Your task to perform on an android device: open app "Venmo" (install if not already installed), go to login, and select forgot password Image 0: 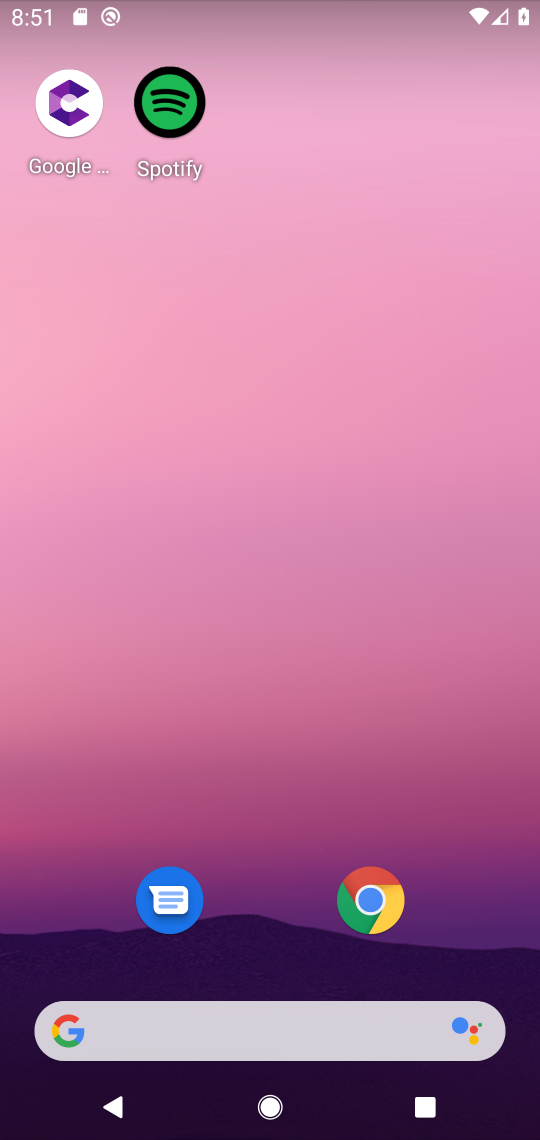
Step 0: drag from (278, 813) to (274, 539)
Your task to perform on an android device: open app "Venmo" (install if not already installed), go to login, and select forgot password Image 1: 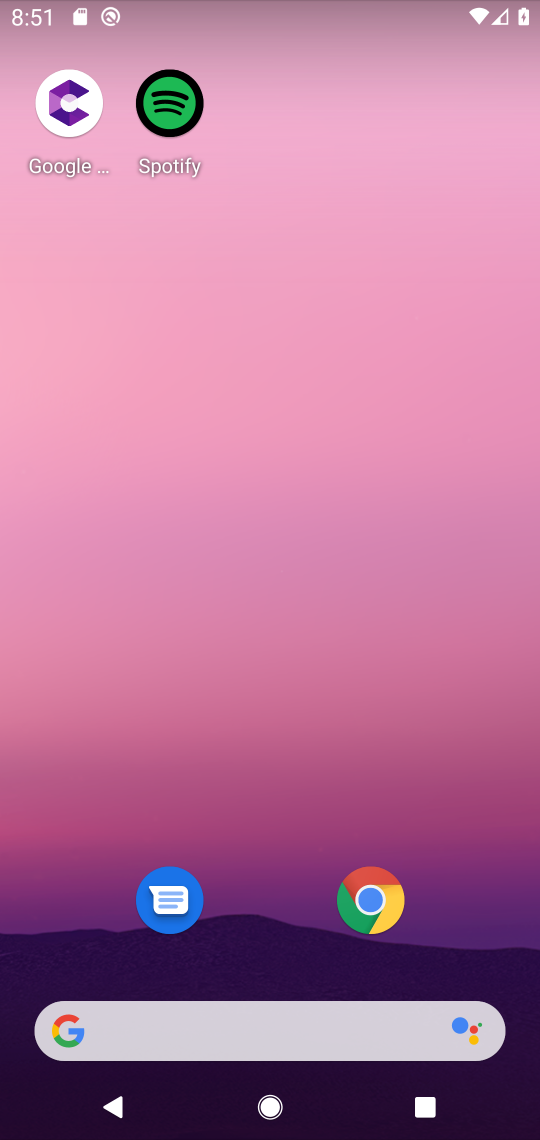
Step 1: drag from (221, 915) to (249, 530)
Your task to perform on an android device: open app "Venmo" (install if not already installed), go to login, and select forgot password Image 2: 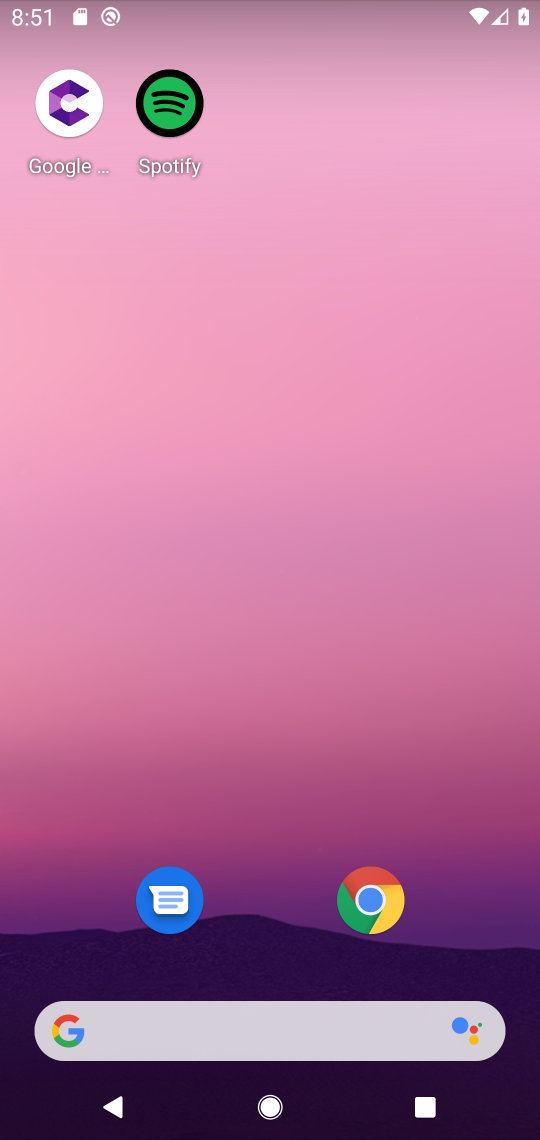
Step 2: drag from (280, 1002) to (445, 134)
Your task to perform on an android device: open app "Venmo" (install if not already installed), go to login, and select forgot password Image 3: 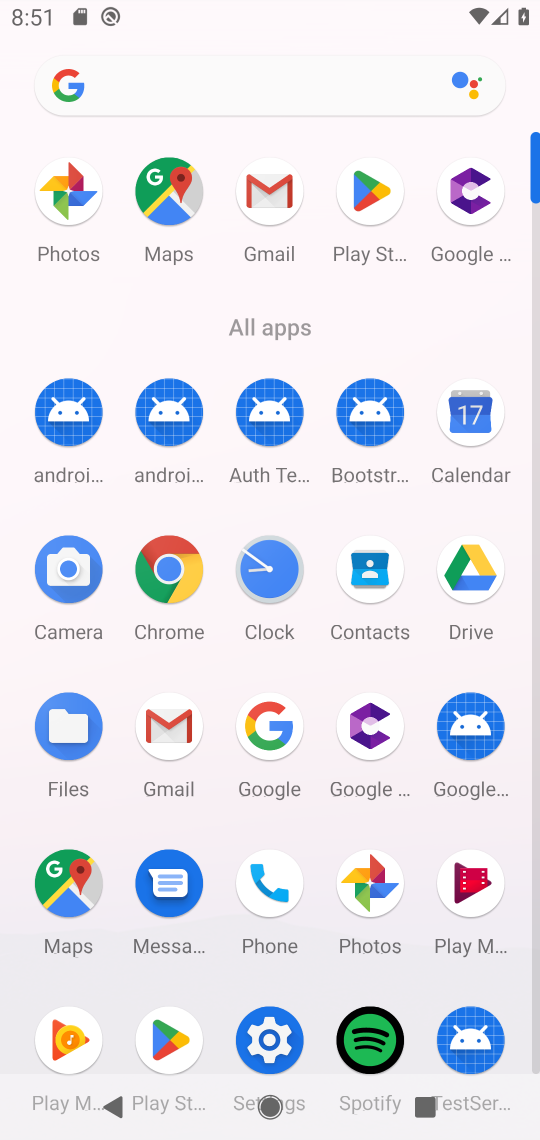
Step 3: click (372, 192)
Your task to perform on an android device: open app "Venmo" (install if not already installed), go to login, and select forgot password Image 4: 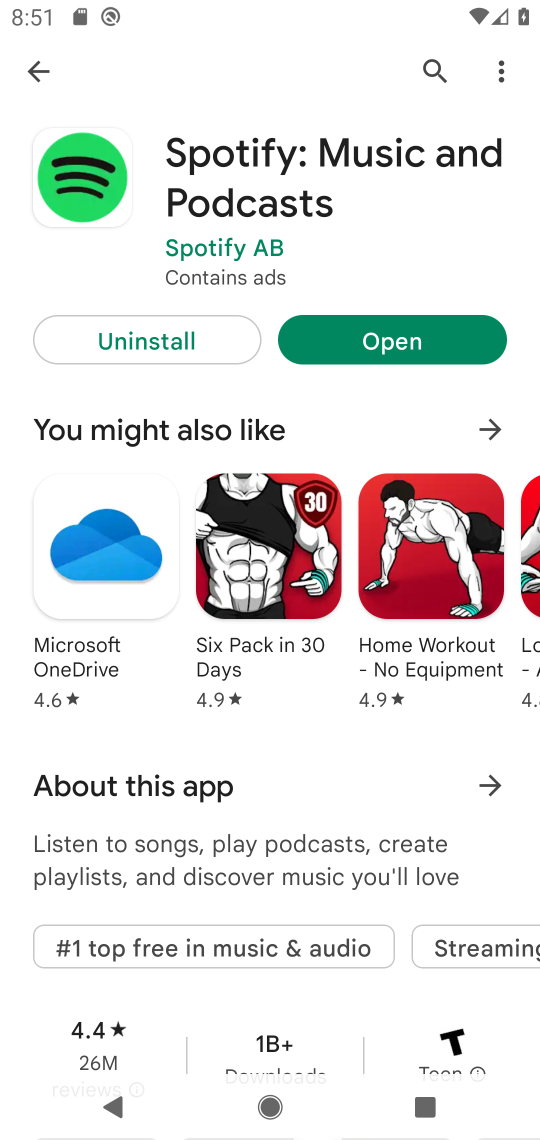
Step 4: click (34, 71)
Your task to perform on an android device: open app "Venmo" (install if not already installed), go to login, and select forgot password Image 5: 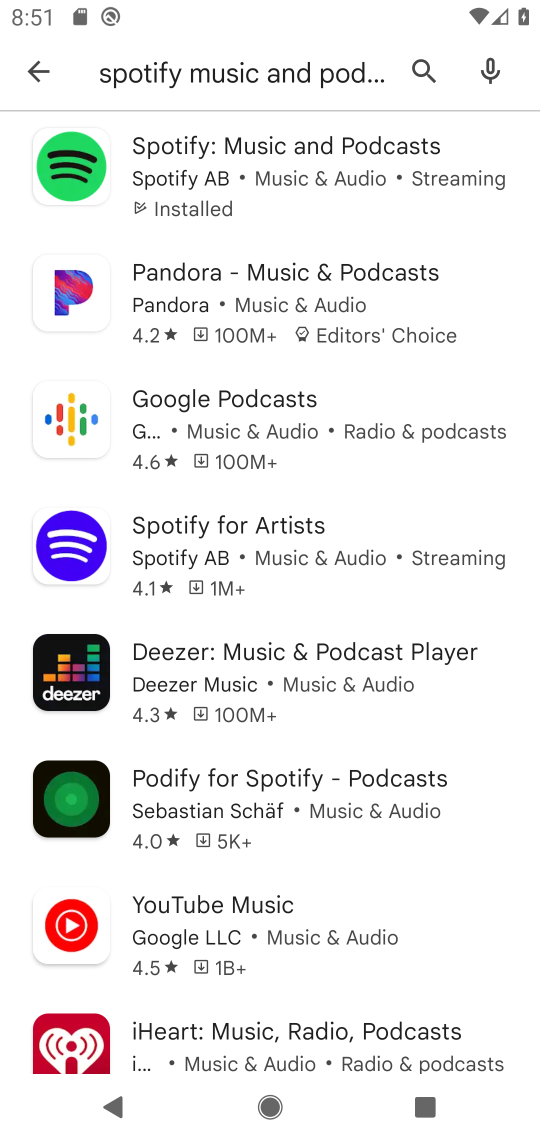
Step 5: click (44, 86)
Your task to perform on an android device: open app "Venmo" (install if not already installed), go to login, and select forgot password Image 6: 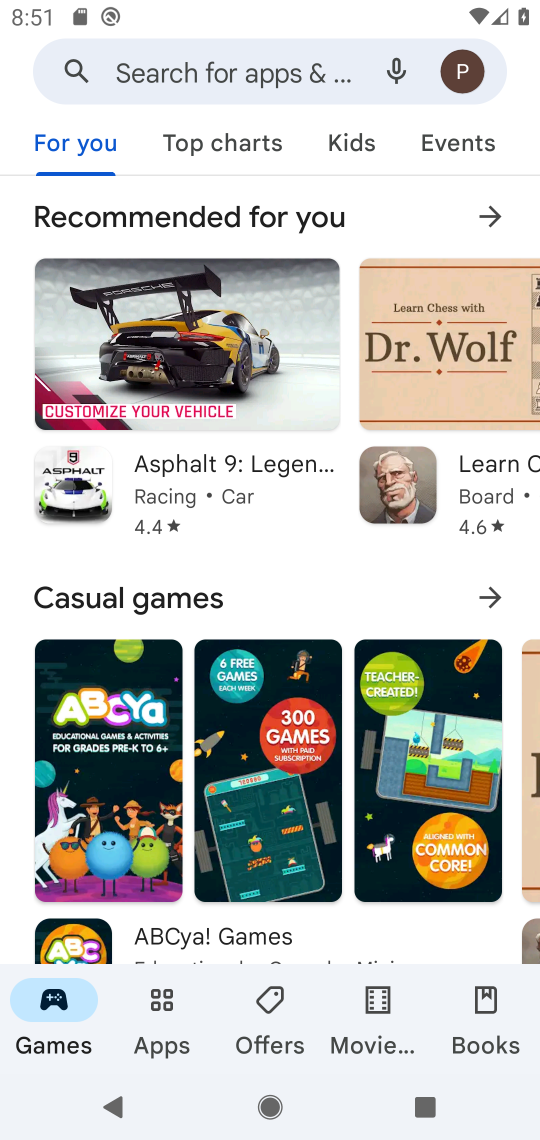
Step 6: click (122, 68)
Your task to perform on an android device: open app "Venmo" (install if not already installed), go to login, and select forgot password Image 7: 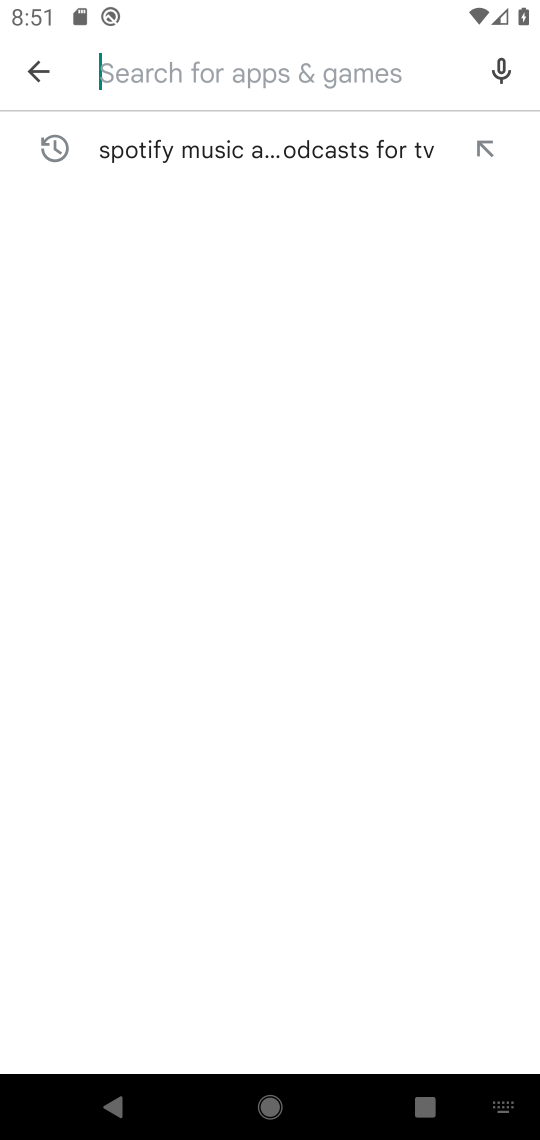
Step 7: type "Venmo"
Your task to perform on an android device: open app "Venmo" (install if not already installed), go to login, and select forgot password Image 8: 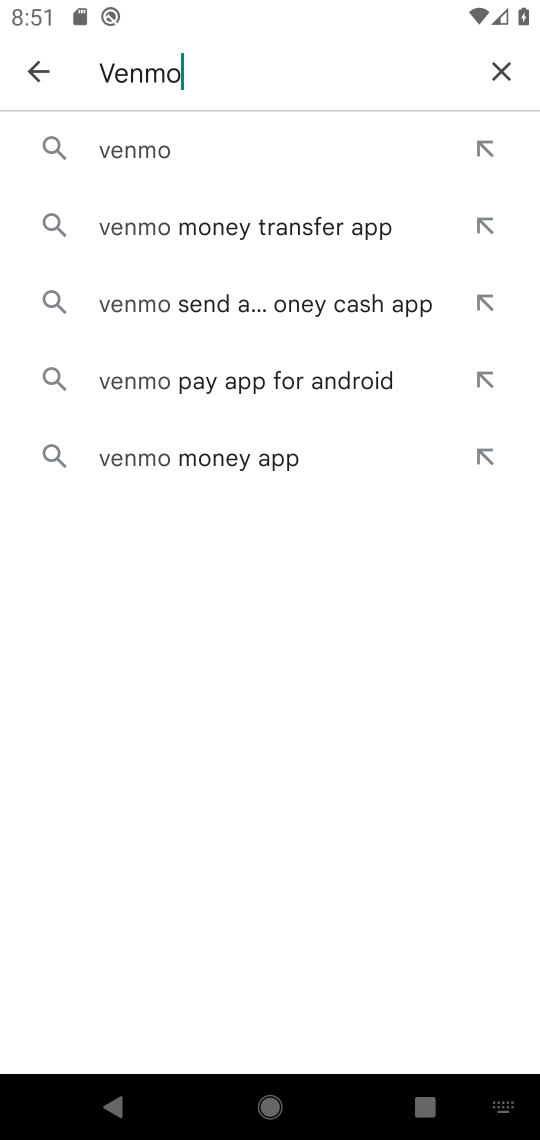
Step 8: click (286, 140)
Your task to perform on an android device: open app "Venmo" (install if not already installed), go to login, and select forgot password Image 9: 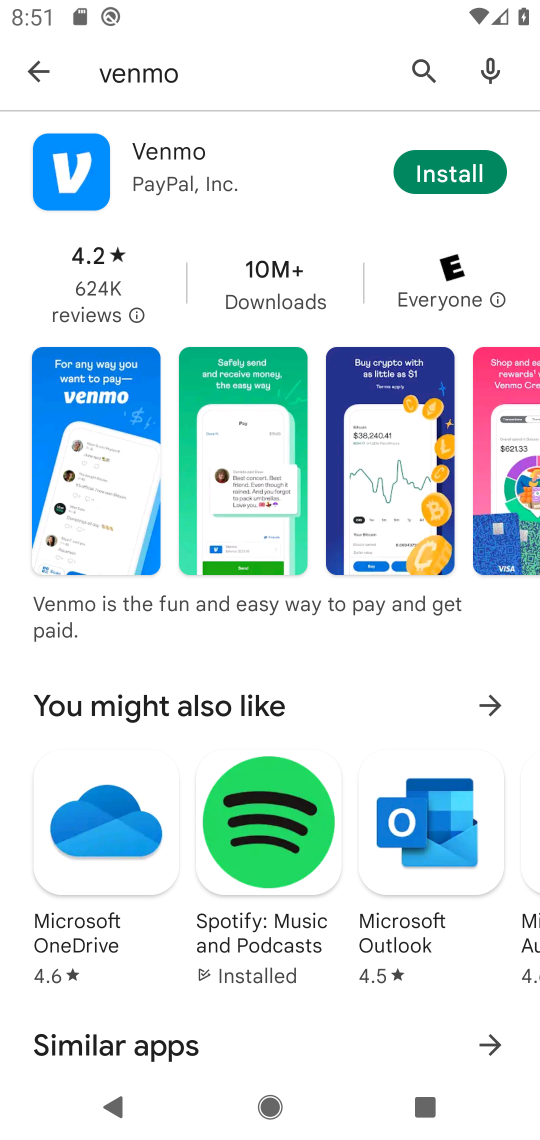
Step 9: click (433, 175)
Your task to perform on an android device: open app "Venmo" (install if not already installed), go to login, and select forgot password Image 10: 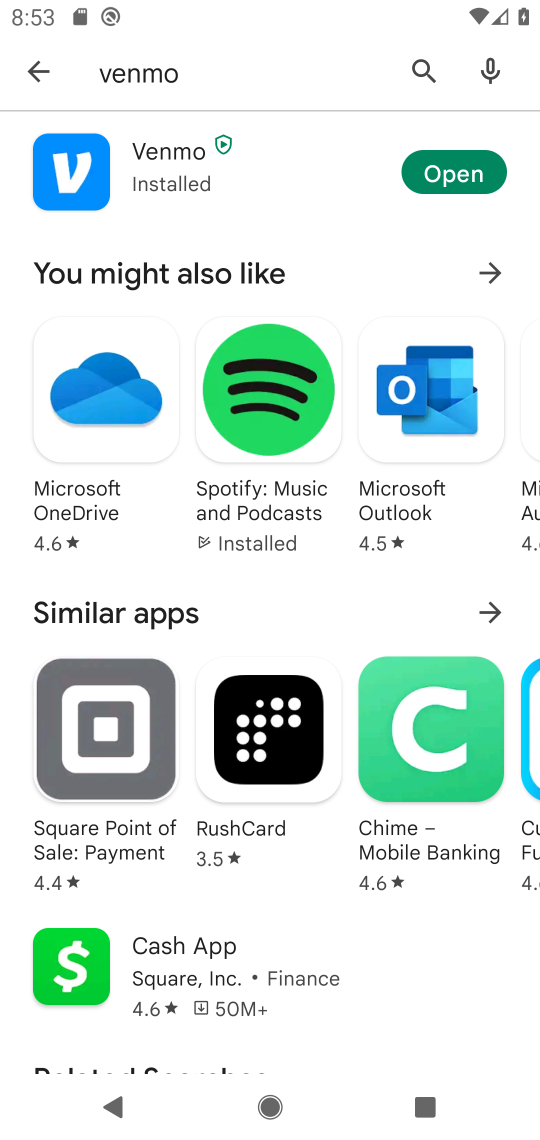
Step 10: click (429, 162)
Your task to perform on an android device: open app "Venmo" (install if not already installed), go to login, and select forgot password Image 11: 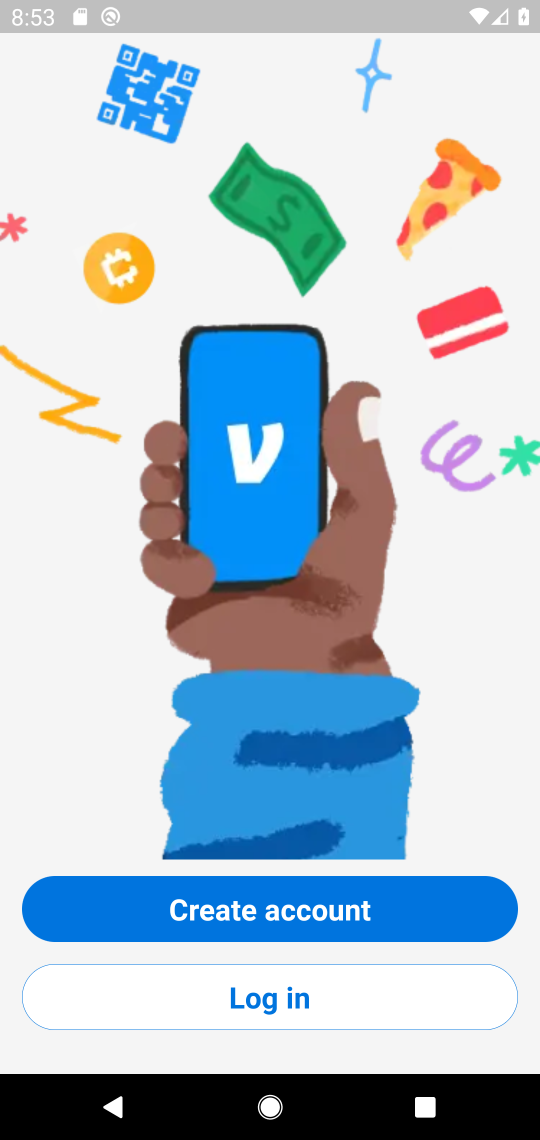
Step 11: task complete